Your task to perform on an android device: delete the emails in spam in the gmail app Image 0: 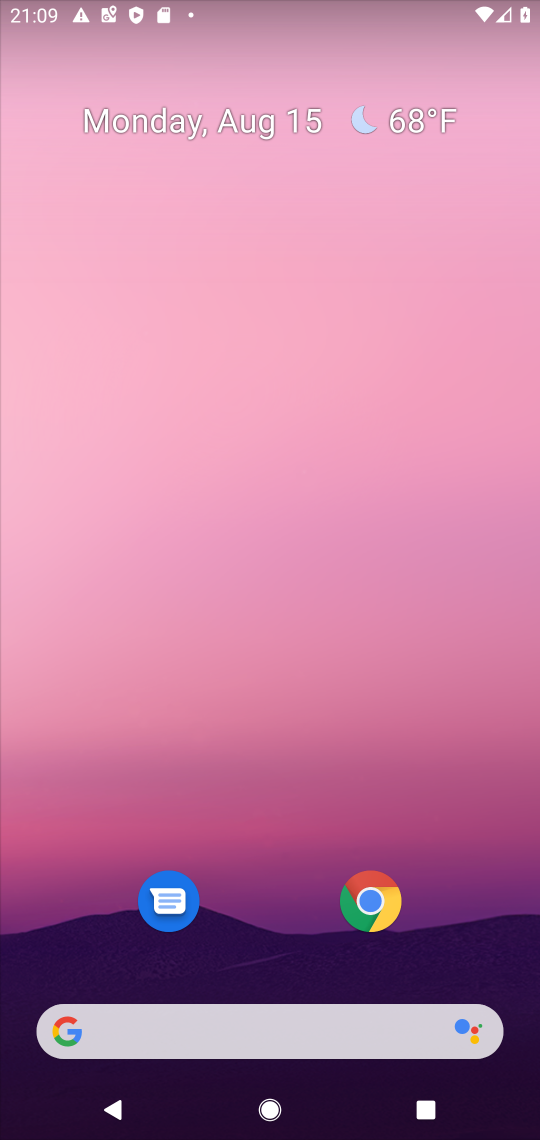
Step 0: drag from (231, 945) to (220, 13)
Your task to perform on an android device: delete the emails in spam in the gmail app Image 1: 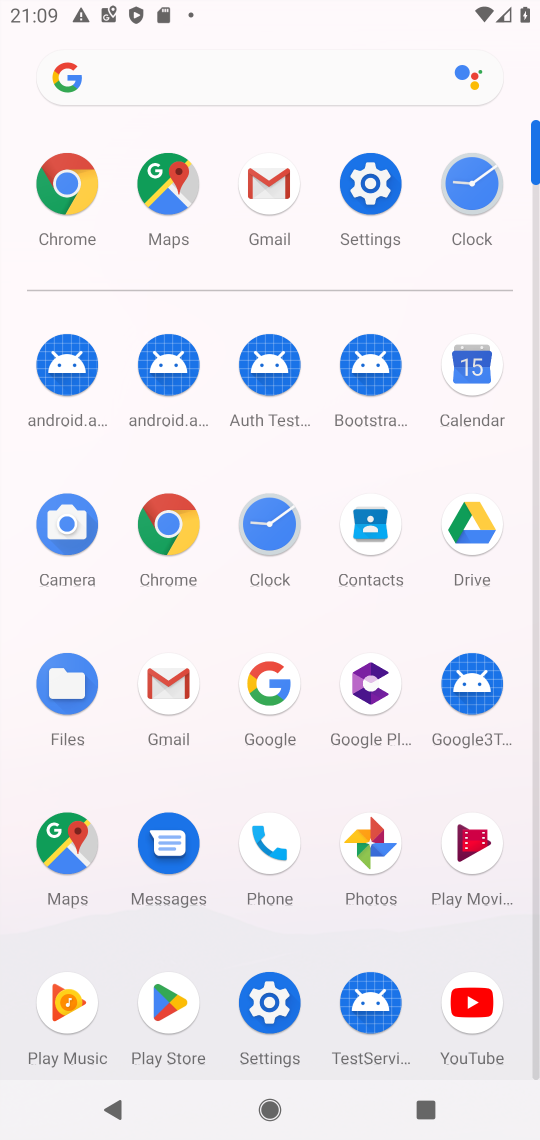
Step 1: click (181, 704)
Your task to perform on an android device: delete the emails in spam in the gmail app Image 2: 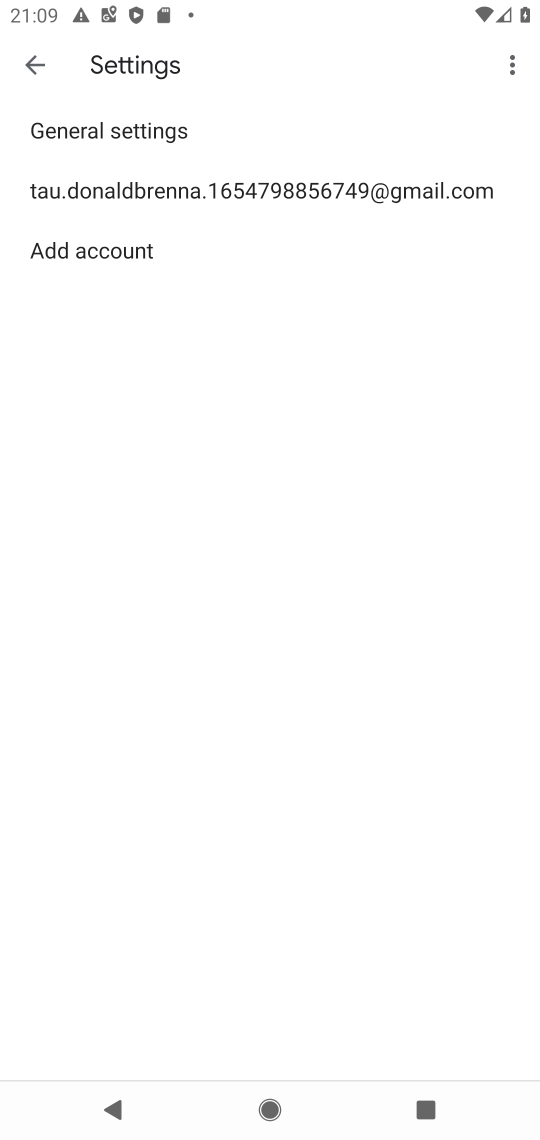
Step 2: click (42, 74)
Your task to perform on an android device: delete the emails in spam in the gmail app Image 3: 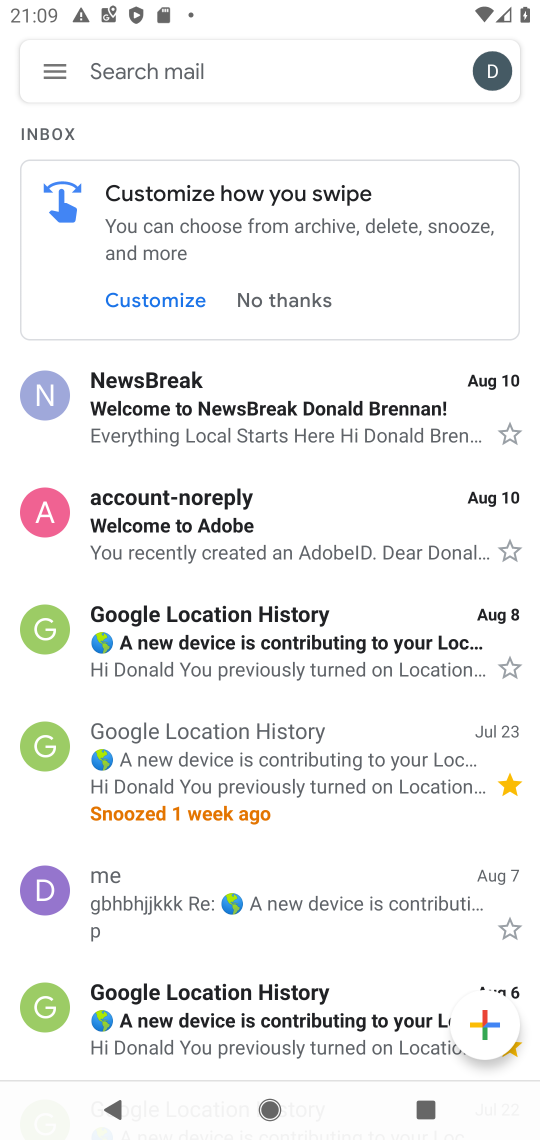
Step 3: click (50, 62)
Your task to perform on an android device: delete the emails in spam in the gmail app Image 4: 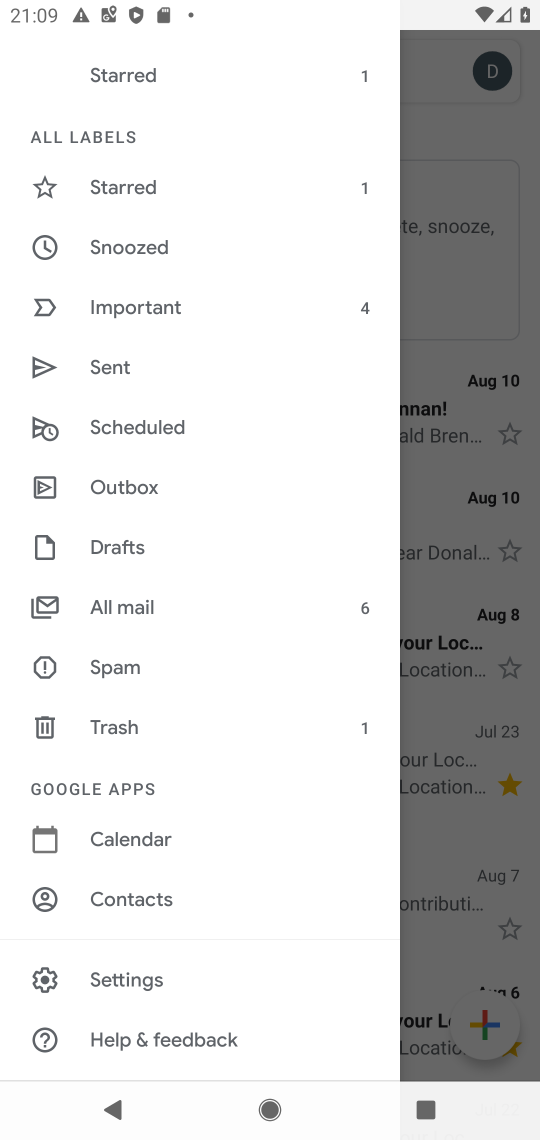
Step 4: click (133, 677)
Your task to perform on an android device: delete the emails in spam in the gmail app Image 5: 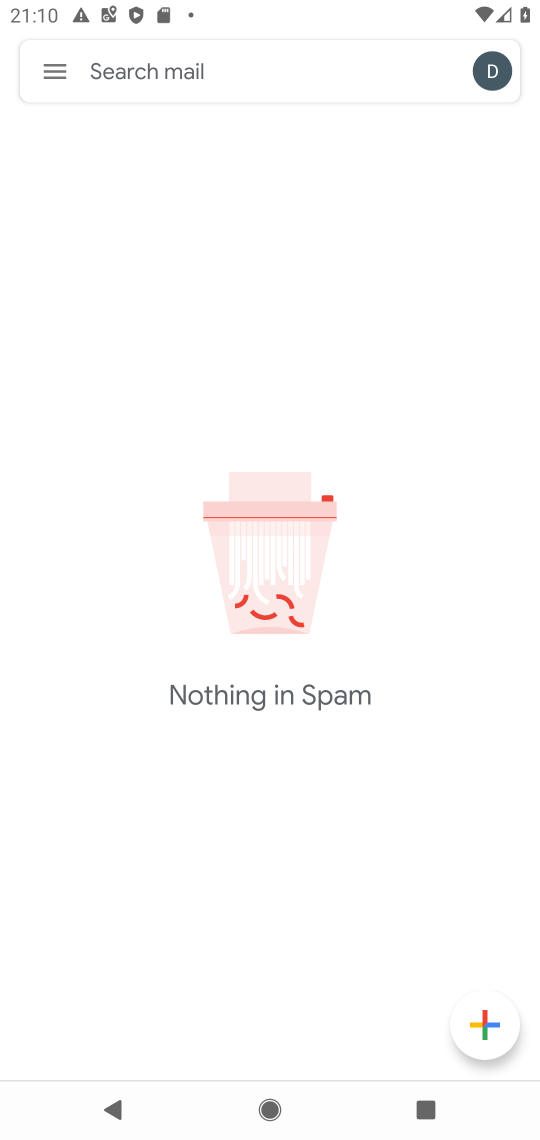
Step 5: task complete